Your task to perform on an android device: set default search engine in the chrome app Image 0: 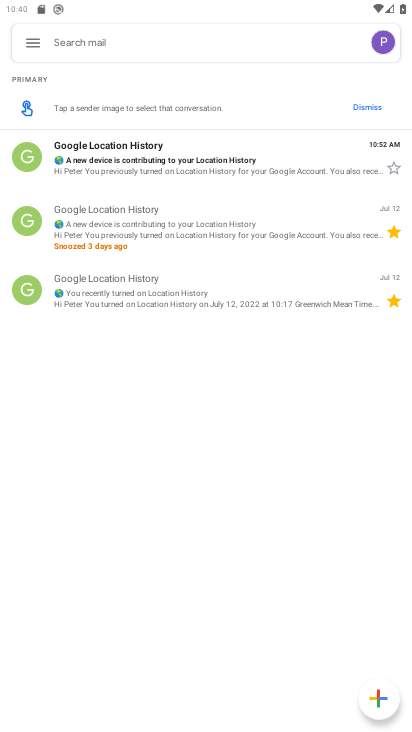
Step 0: press home button
Your task to perform on an android device: set default search engine in the chrome app Image 1: 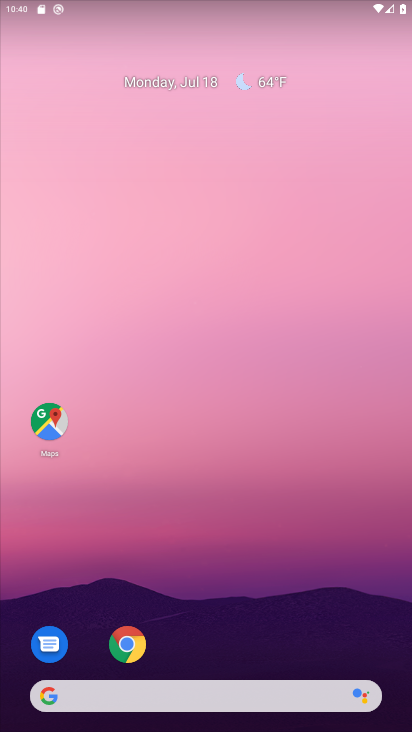
Step 1: click (128, 651)
Your task to perform on an android device: set default search engine in the chrome app Image 2: 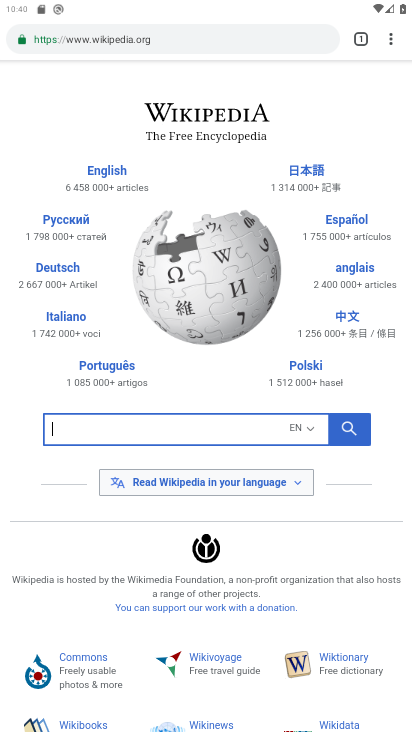
Step 2: click (391, 31)
Your task to perform on an android device: set default search engine in the chrome app Image 3: 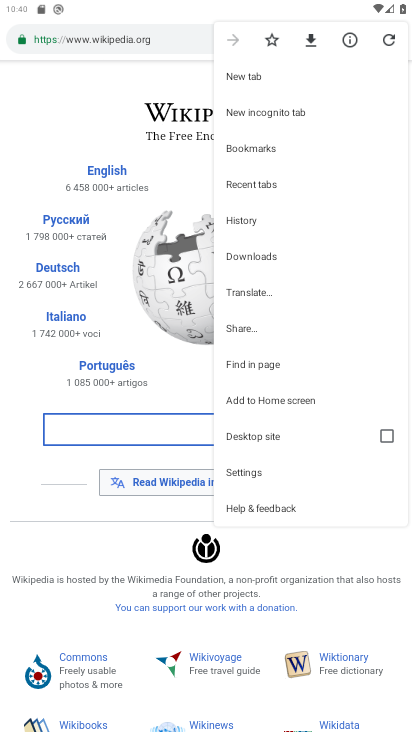
Step 3: click (249, 474)
Your task to perform on an android device: set default search engine in the chrome app Image 4: 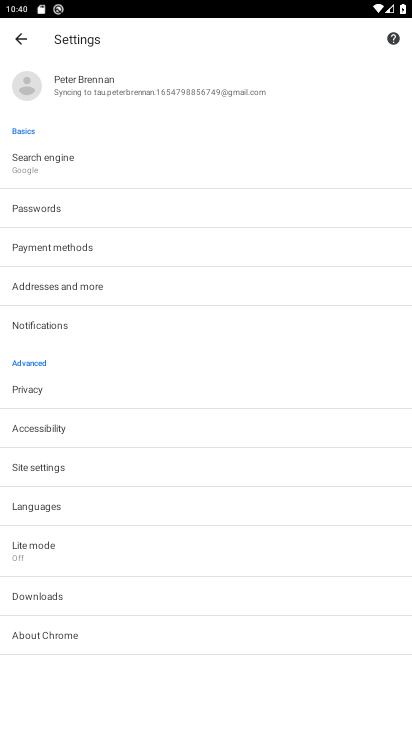
Step 4: click (29, 158)
Your task to perform on an android device: set default search engine in the chrome app Image 5: 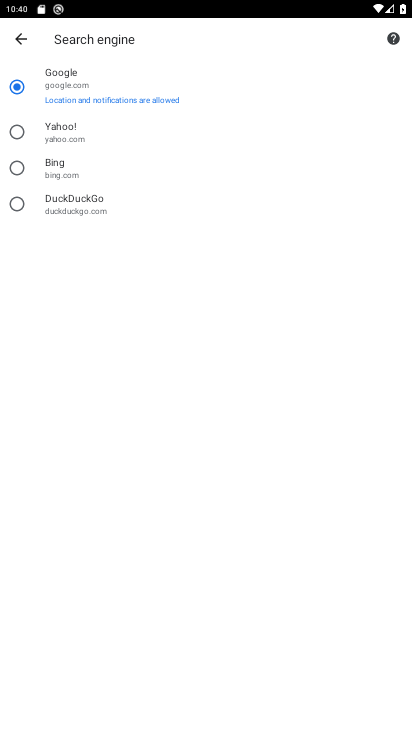
Step 5: click (69, 145)
Your task to perform on an android device: set default search engine in the chrome app Image 6: 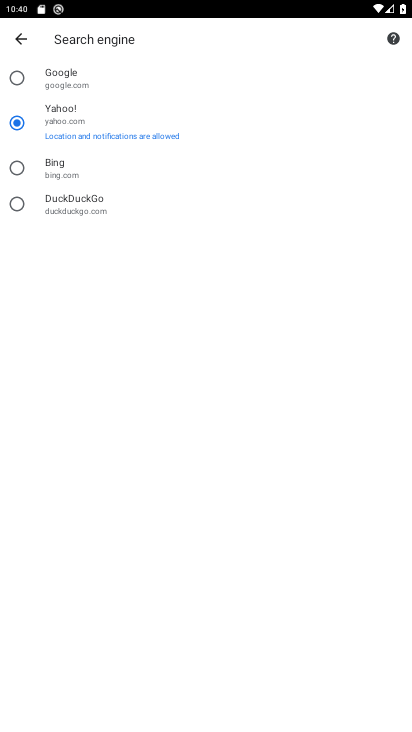
Step 6: task complete